Your task to perform on an android device: toggle translation in the chrome app Image 0: 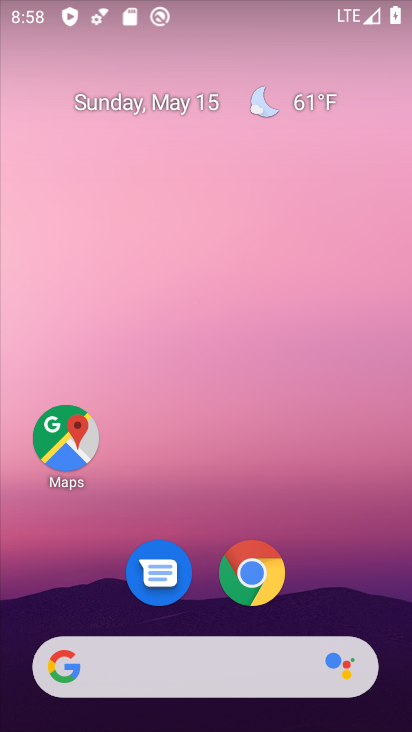
Step 0: click (248, 578)
Your task to perform on an android device: toggle translation in the chrome app Image 1: 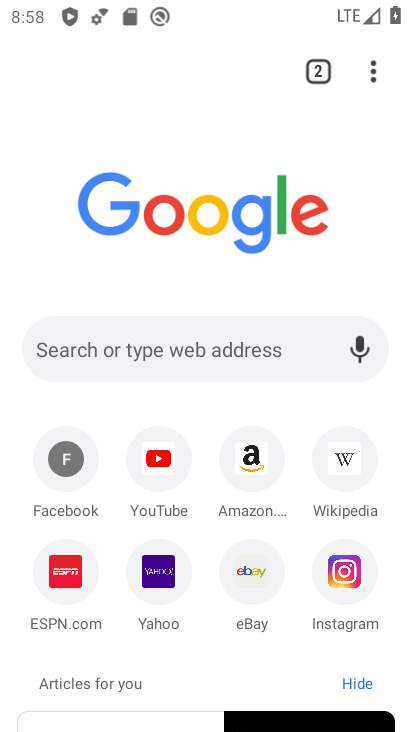
Step 1: click (371, 74)
Your task to perform on an android device: toggle translation in the chrome app Image 2: 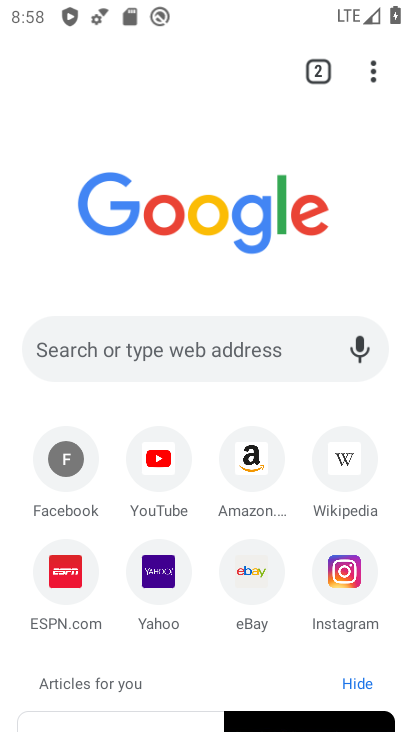
Step 2: click (364, 71)
Your task to perform on an android device: toggle translation in the chrome app Image 3: 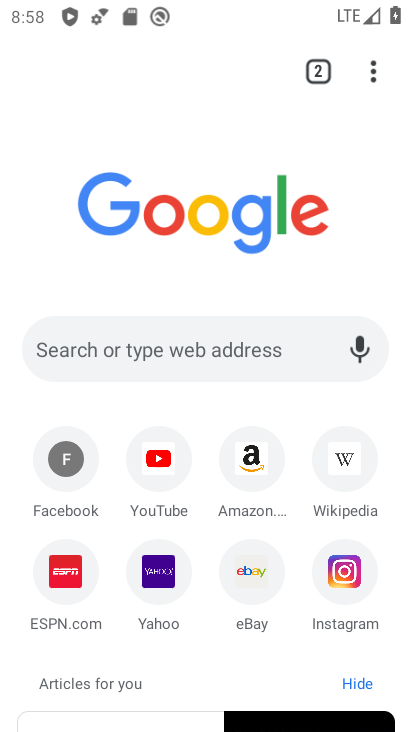
Step 3: click (371, 69)
Your task to perform on an android device: toggle translation in the chrome app Image 4: 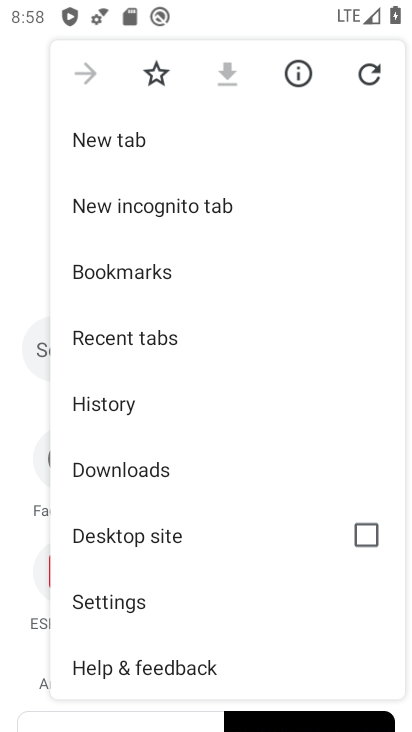
Step 4: click (133, 603)
Your task to perform on an android device: toggle translation in the chrome app Image 5: 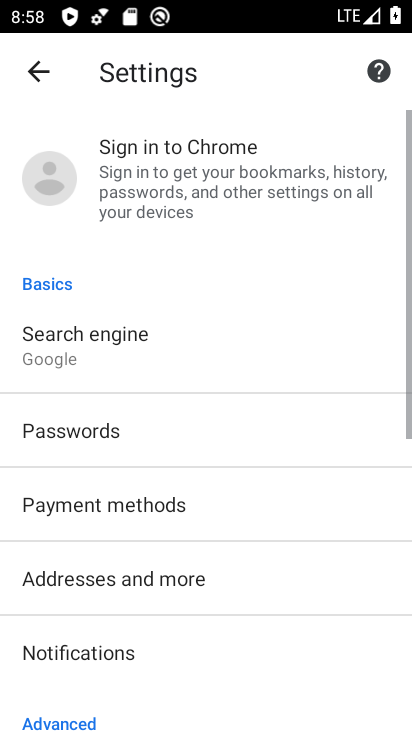
Step 5: drag from (81, 673) to (229, 134)
Your task to perform on an android device: toggle translation in the chrome app Image 6: 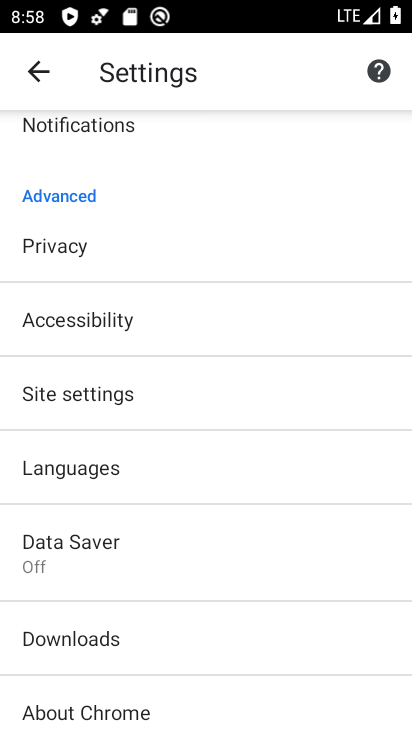
Step 6: click (54, 398)
Your task to perform on an android device: toggle translation in the chrome app Image 7: 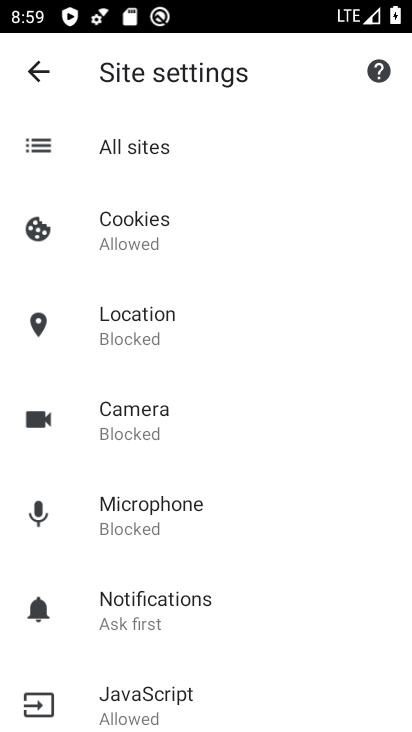
Step 7: press back button
Your task to perform on an android device: toggle translation in the chrome app Image 8: 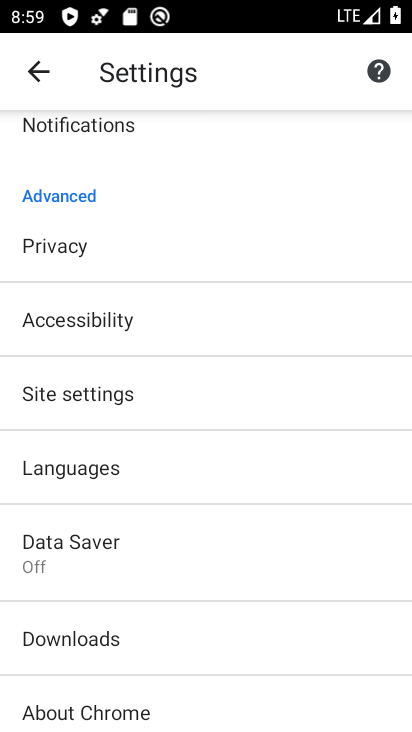
Step 8: click (83, 470)
Your task to perform on an android device: toggle translation in the chrome app Image 9: 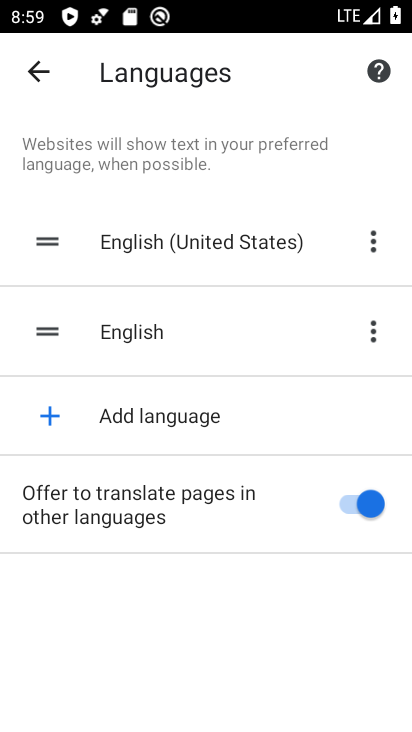
Step 9: click (370, 504)
Your task to perform on an android device: toggle translation in the chrome app Image 10: 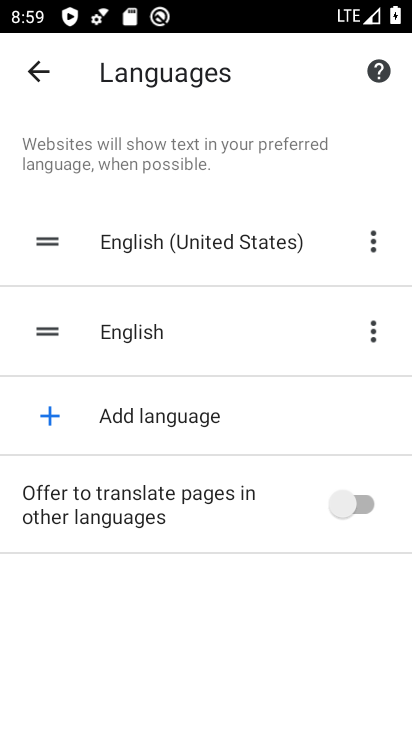
Step 10: task complete